Your task to perform on an android device: Go to network settings Image 0: 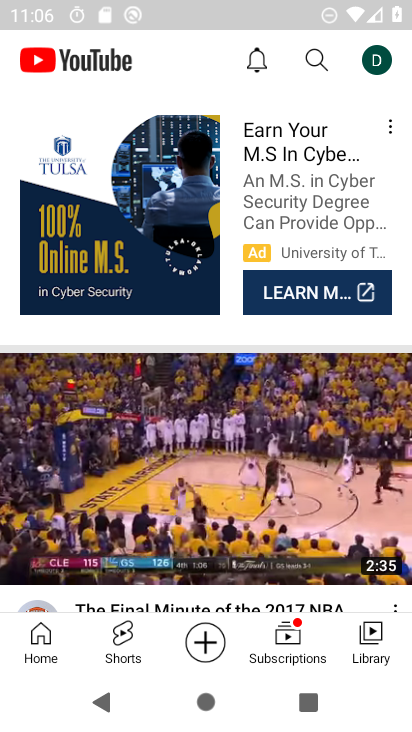
Step 0: press home button
Your task to perform on an android device: Go to network settings Image 1: 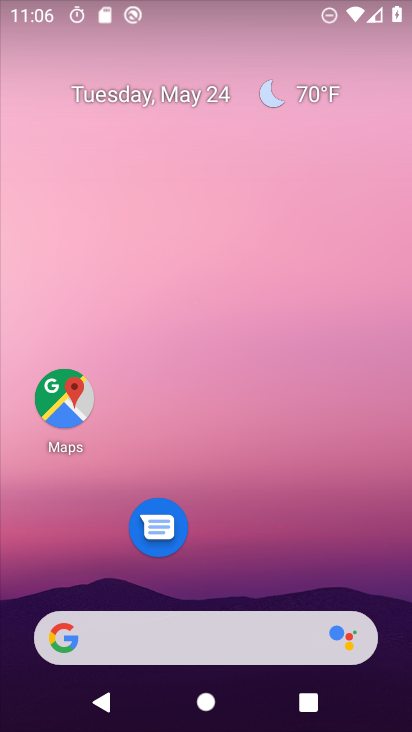
Step 1: drag from (289, 549) to (307, 105)
Your task to perform on an android device: Go to network settings Image 2: 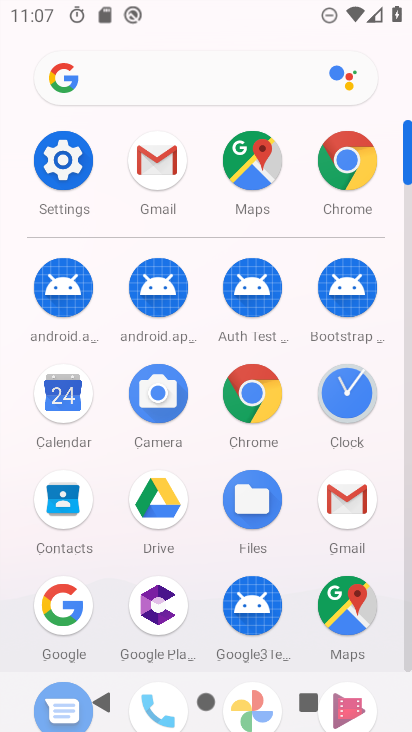
Step 2: click (65, 158)
Your task to perform on an android device: Go to network settings Image 3: 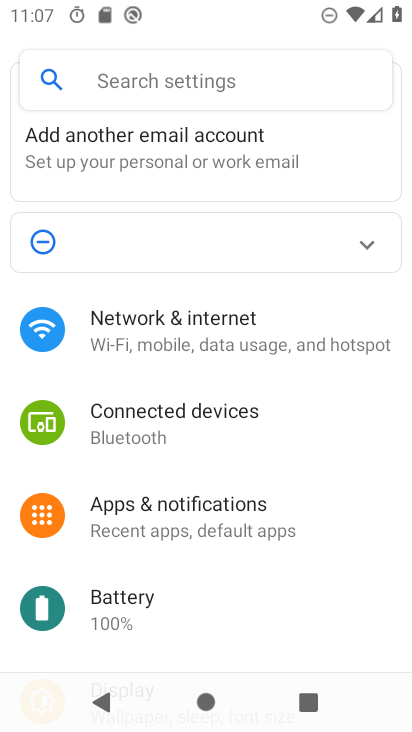
Step 3: click (187, 320)
Your task to perform on an android device: Go to network settings Image 4: 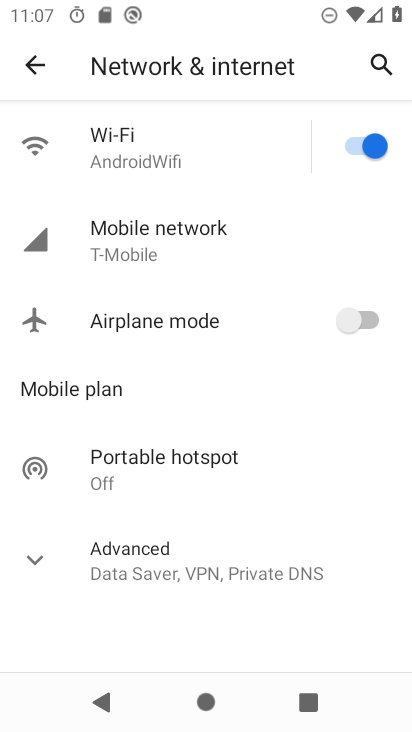
Step 4: click (172, 241)
Your task to perform on an android device: Go to network settings Image 5: 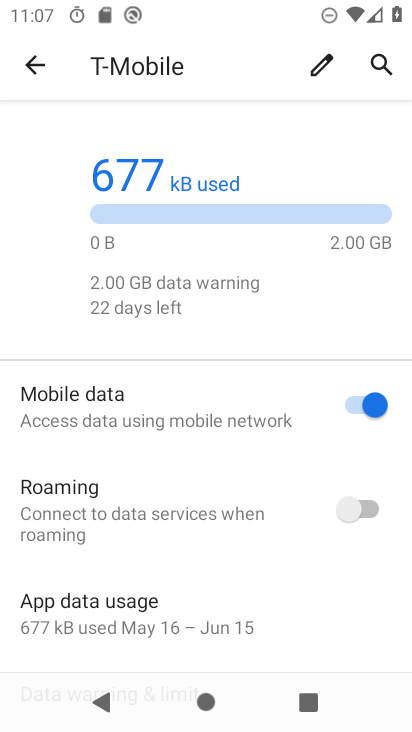
Step 5: task complete